Your task to perform on an android device: change the clock display to analog Image 0: 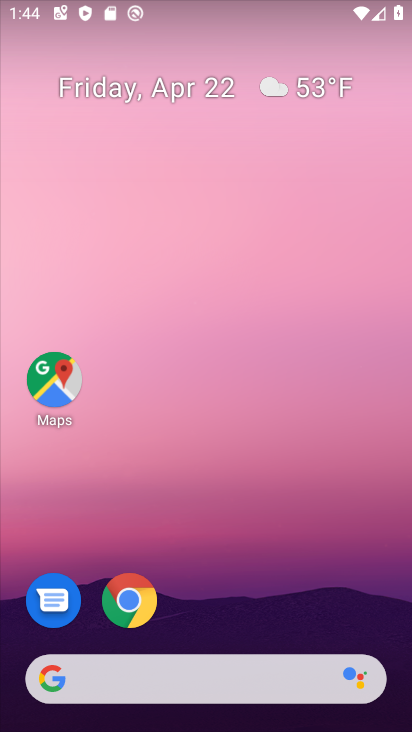
Step 0: drag from (225, 656) to (229, 154)
Your task to perform on an android device: change the clock display to analog Image 1: 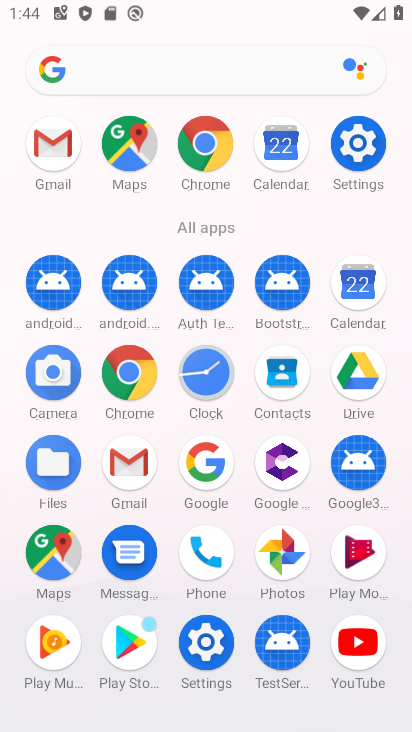
Step 1: click (207, 371)
Your task to perform on an android device: change the clock display to analog Image 2: 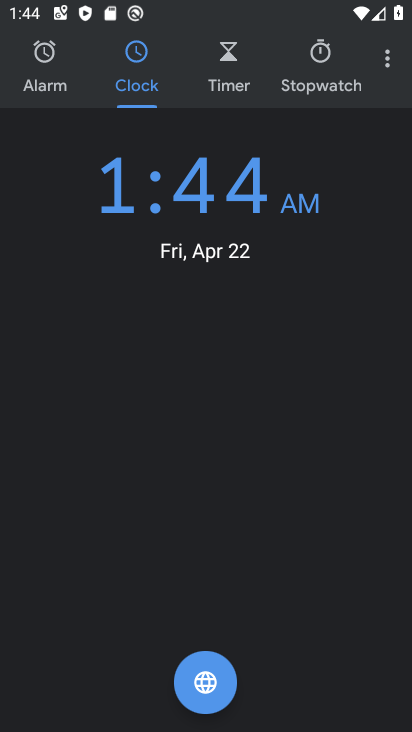
Step 2: click (387, 60)
Your task to perform on an android device: change the clock display to analog Image 3: 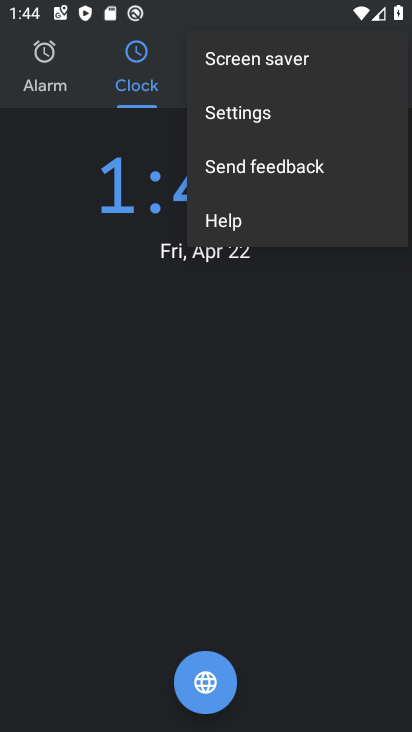
Step 3: click (249, 111)
Your task to perform on an android device: change the clock display to analog Image 4: 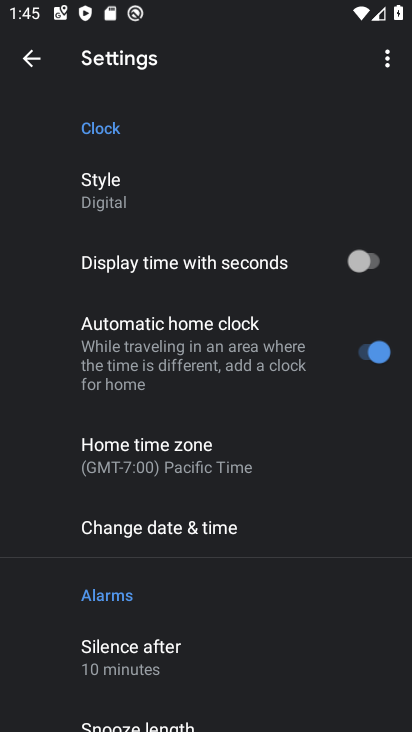
Step 4: click (98, 198)
Your task to perform on an android device: change the clock display to analog Image 5: 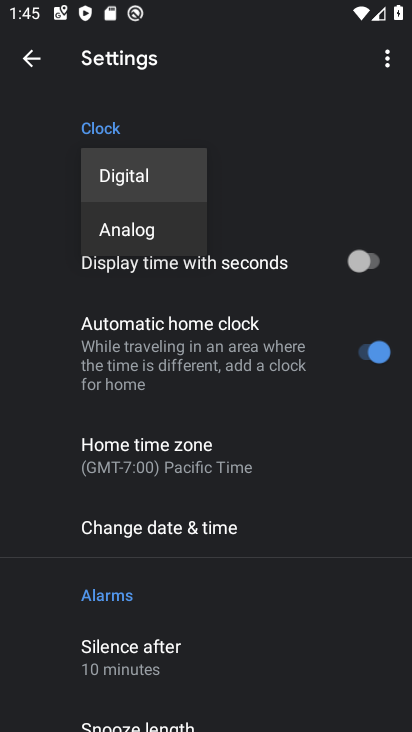
Step 5: click (121, 227)
Your task to perform on an android device: change the clock display to analog Image 6: 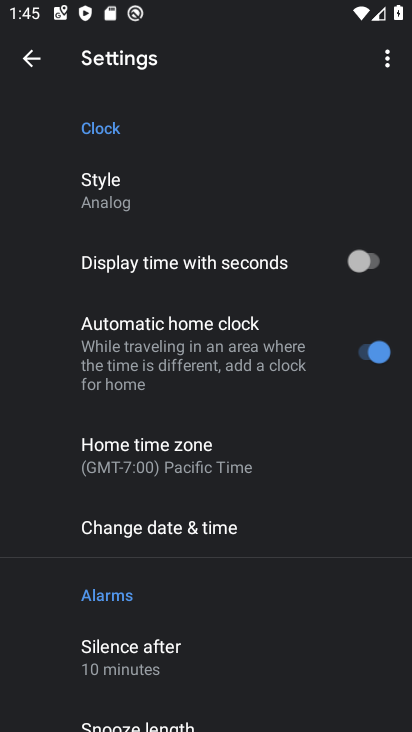
Step 6: task complete